Your task to perform on an android device: change text size in settings app Image 0: 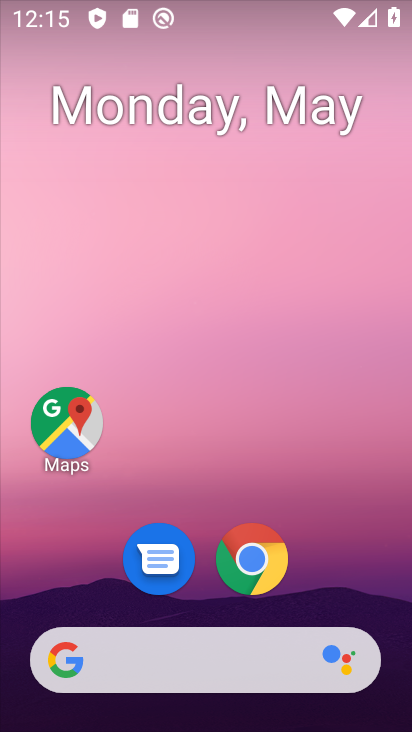
Step 0: drag from (300, 451) to (178, 31)
Your task to perform on an android device: change text size in settings app Image 1: 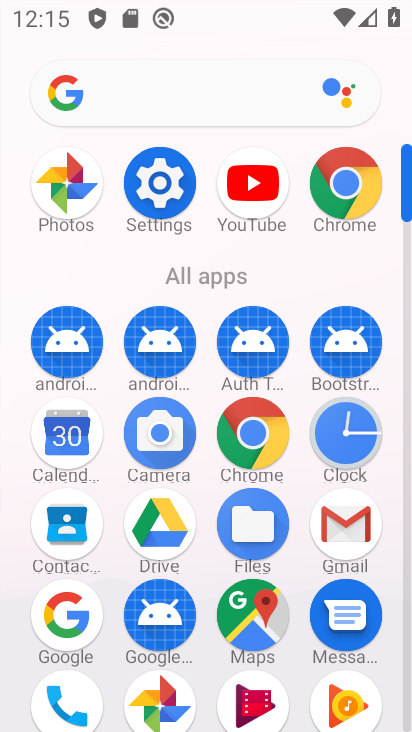
Step 1: drag from (29, 607) to (11, 327)
Your task to perform on an android device: change text size in settings app Image 2: 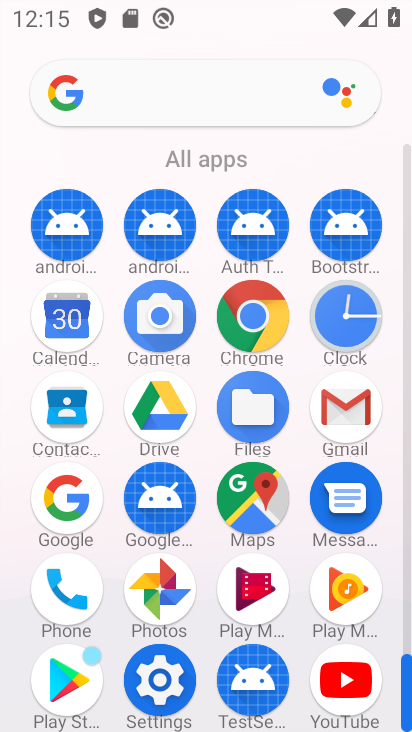
Step 2: click (162, 680)
Your task to perform on an android device: change text size in settings app Image 3: 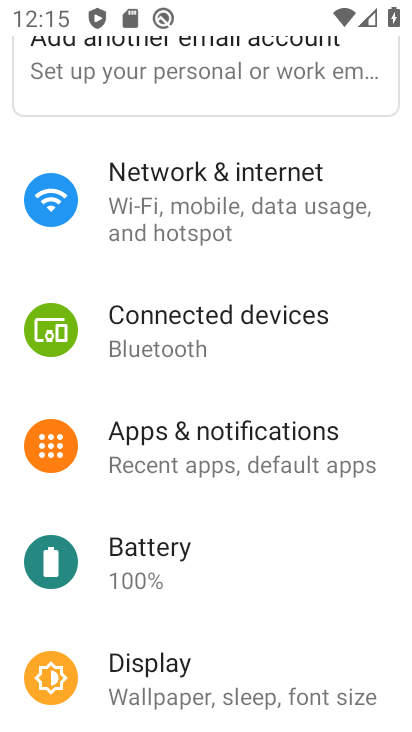
Step 3: drag from (290, 607) to (290, 250)
Your task to perform on an android device: change text size in settings app Image 4: 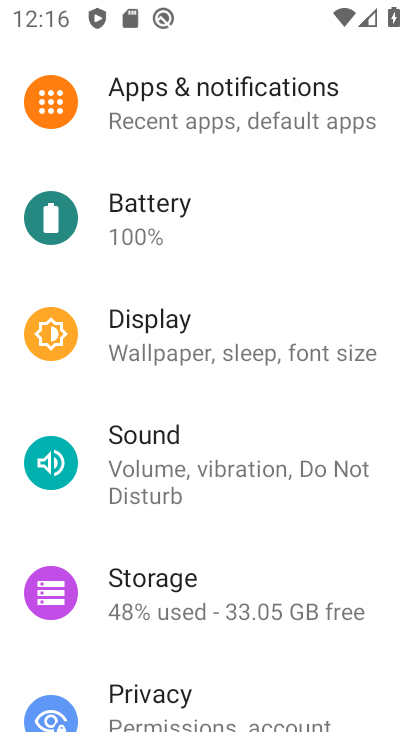
Step 4: drag from (289, 268) to (284, 548)
Your task to perform on an android device: change text size in settings app Image 5: 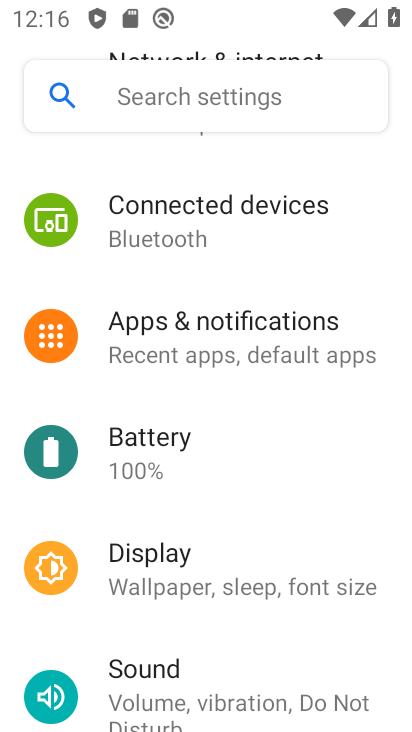
Step 5: drag from (273, 223) to (251, 561)
Your task to perform on an android device: change text size in settings app Image 6: 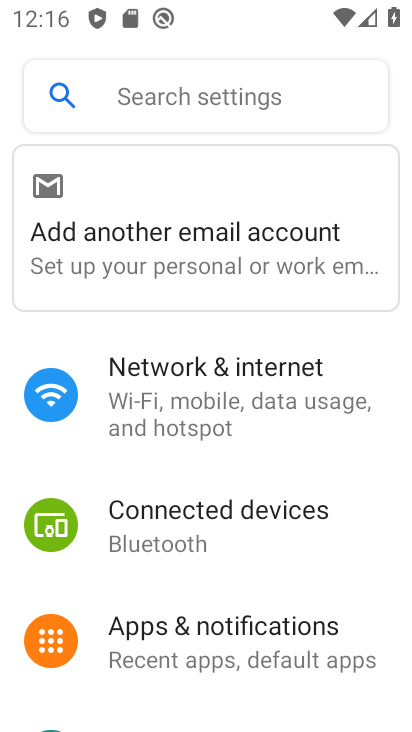
Step 6: drag from (251, 535) to (262, 258)
Your task to perform on an android device: change text size in settings app Image 7: 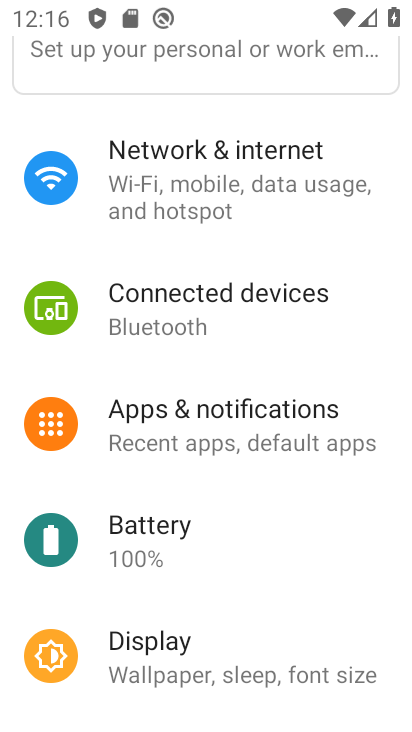
Step 7: drag from (250, 629) to (290, 258)
Your task to perform on an android device: change text size in settings app Image 8: 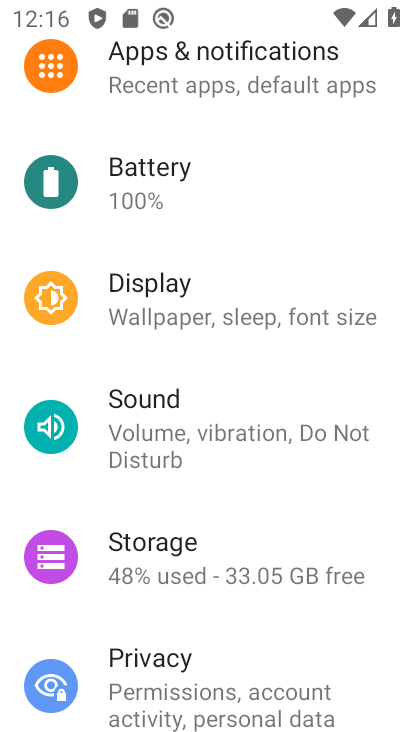
Step 8: click (226, 321)
Your task to perform on an android device: change text size in settings app Image 9: 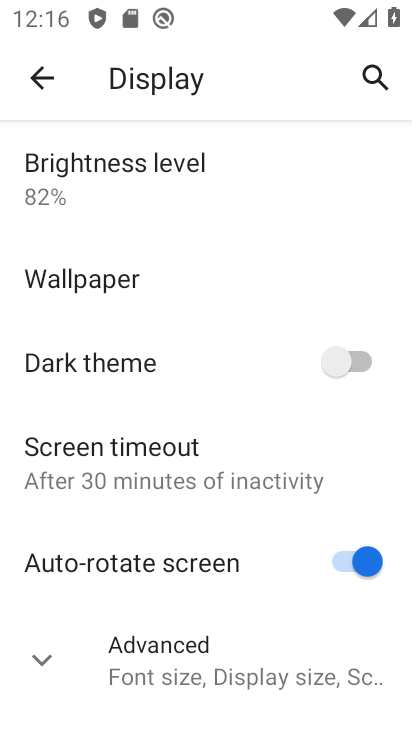
Step 9: click (10, 654)
Your task to perform on an android device: change text size in settings app Image 10: 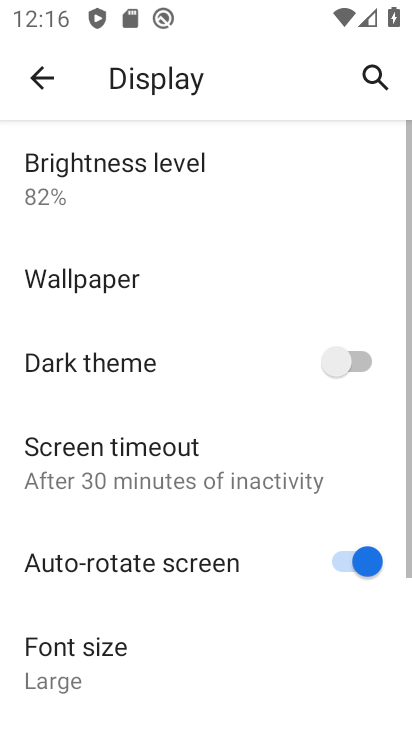
Step 10: drag from (200, 622) to (245, 122)
Your task to perform on an android device: change text size in settings app Image 11: 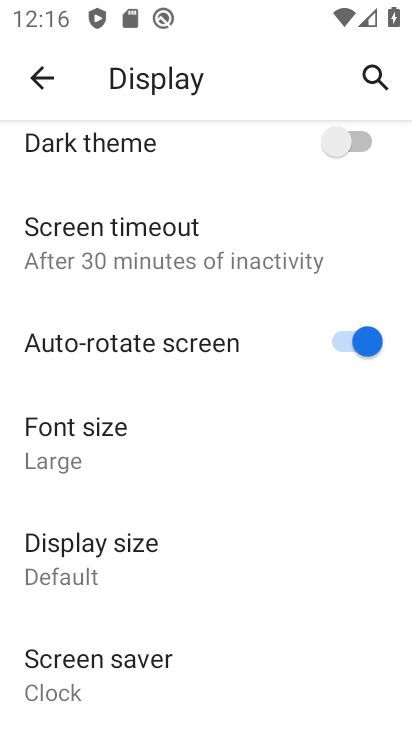
Step 11: click (142, 437)
Your task to perform on an android device: change text size in settings app Image 12: 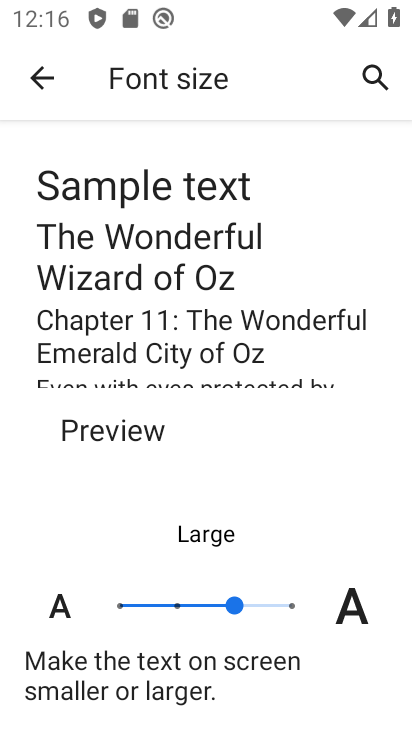
Step 12: click (284, 601)
Your task to perform on an android device: change text size in settings app Image 13: 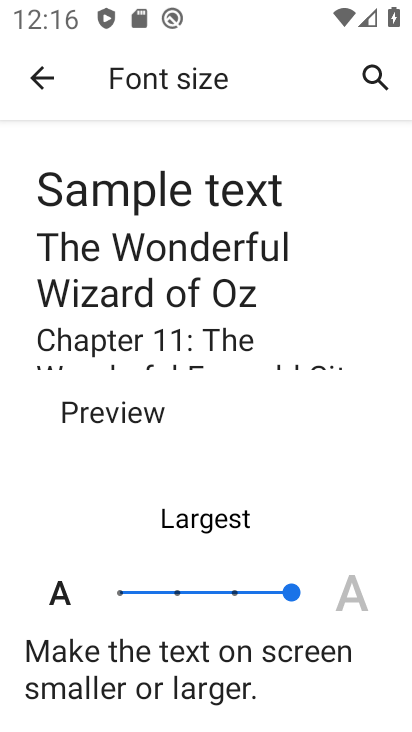
Step 13: task complete